Your task to perform on an android device: snooze an email in the gmail app Image 0: 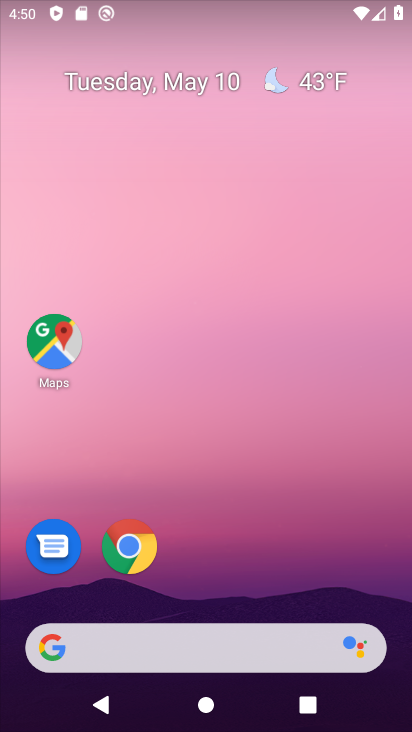
Step 0: drag from (258, 582) to (107, 148)
Your task to perform on an android device: snooze an email in the gmail app Image 1: 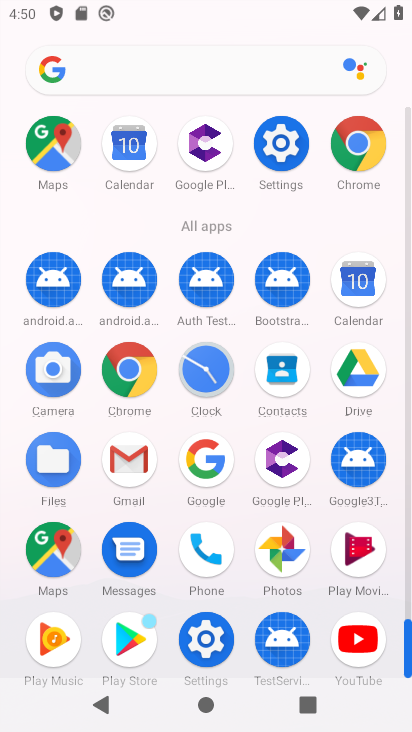
Step 1: click (124, 448)
Your task to perform on an android device: snooze an email in the gmail app Image 2: 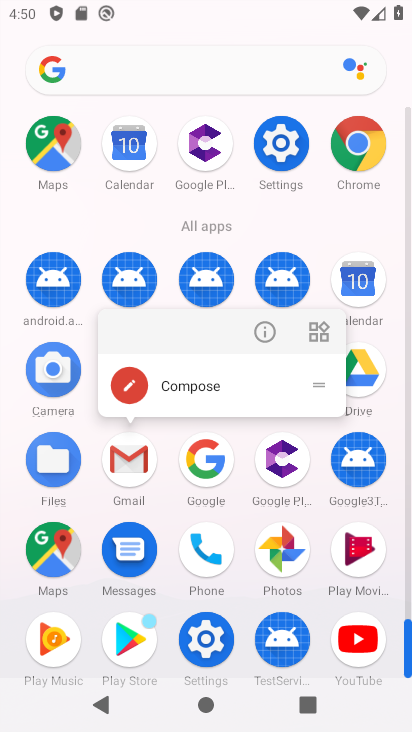
Step 2: click (122, 455)
Your task to perform on an android device: snooze an email in the gmail app Image 3: 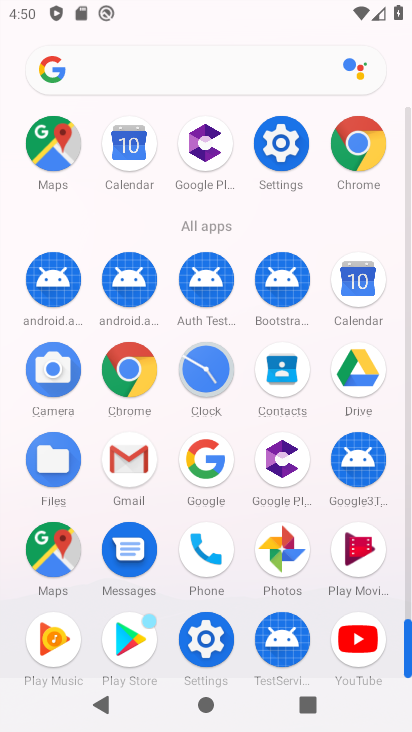
Step 3: click (123, 453)
Your task to perform on an android device: snooze an email in the gmail app Image 4: 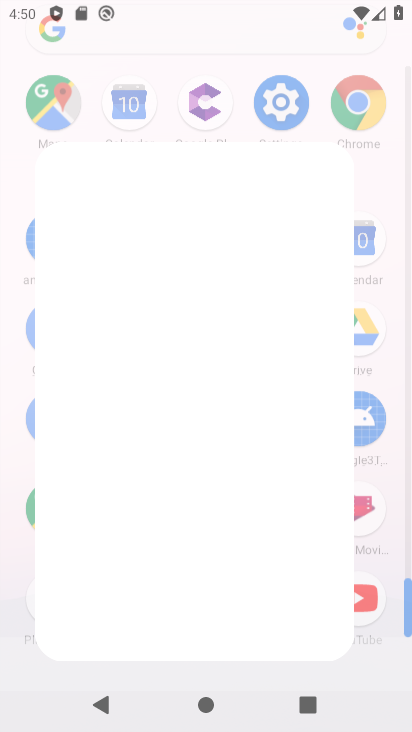
Step 4: click (123, 453)
Your task to perform on an android device: snooze an email in the gmail app Image 5: 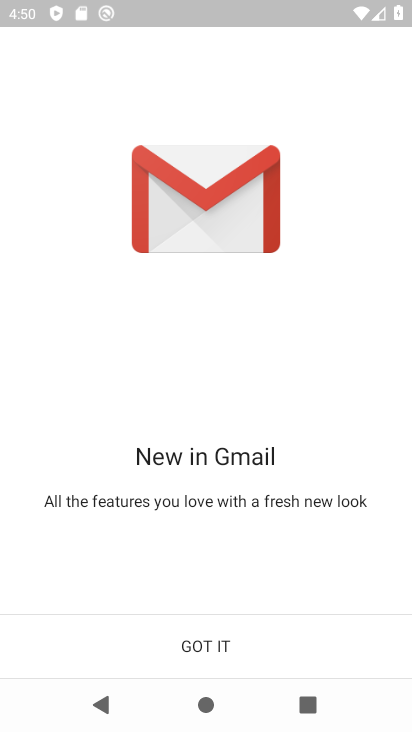
Step 5: click (209, 640)
Your task to perform on an android device: snooze an email in the gmail app Image 6: 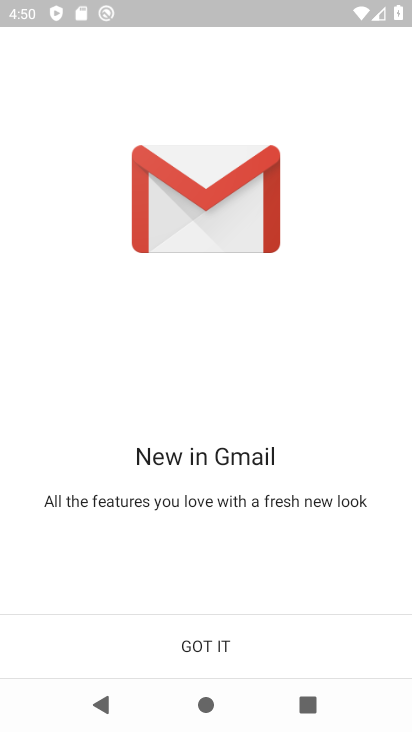
Step 6: click (210, 649)
Your task to perform on an android device: snooze an email in the gmail app Image 7: 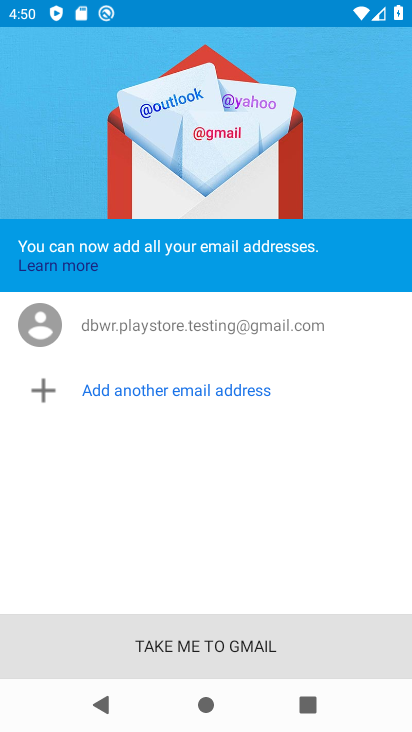
Step 7: click (209, 647)
Your task to perform on an android device: snooze an email in the gmail app Image 8: 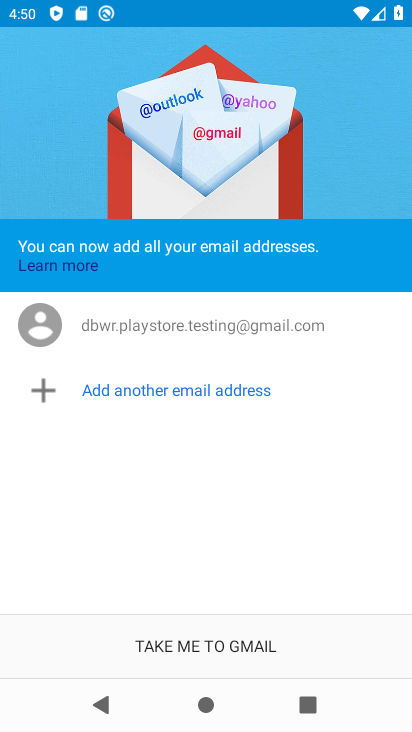
Step 8: click (209, 647)
Your task to perform on an android device: snooze an email in the gmail app Image 9: 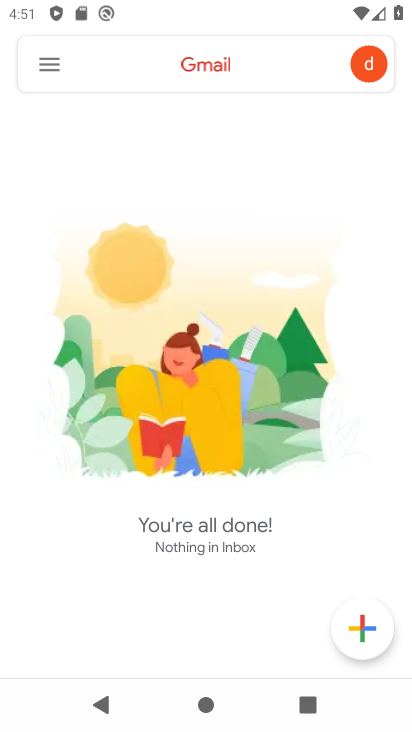
Step 9: click (51, 72)
Your task to perform on an android device: snooze an email in the gmail app Image 10: 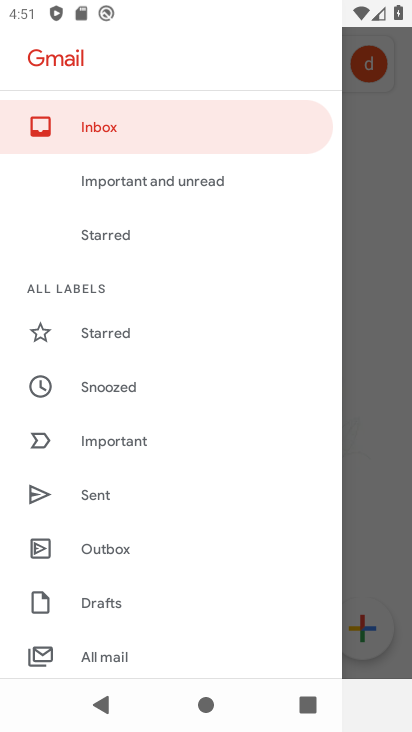
Step 10: click (98, 650)
Your task to perform on an android device: snooze an email in the gmail app Image 11: 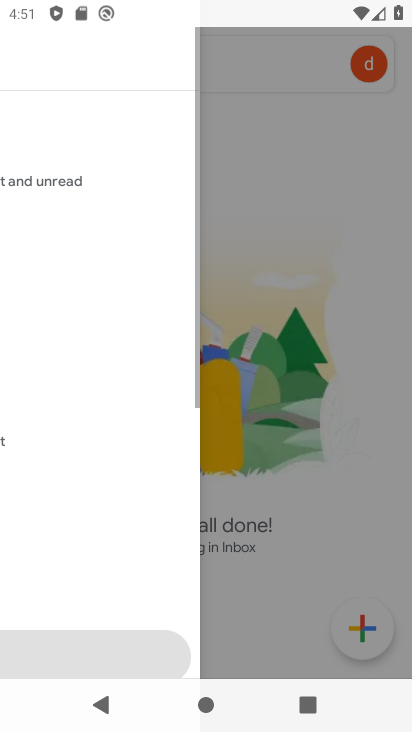
Step 11: click (98, 651)
Your task to perform on an android device: snooze an email in the gmail app Image 12: 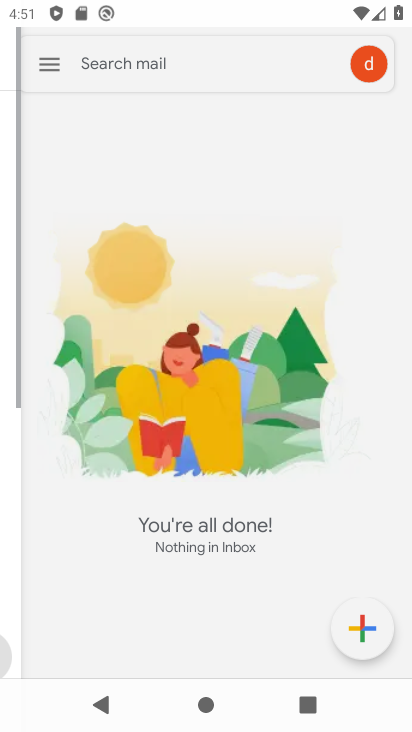
Step 12: click (99, 652)
Your task to perform on an android device: snooze an email in the gmail app Image 13: 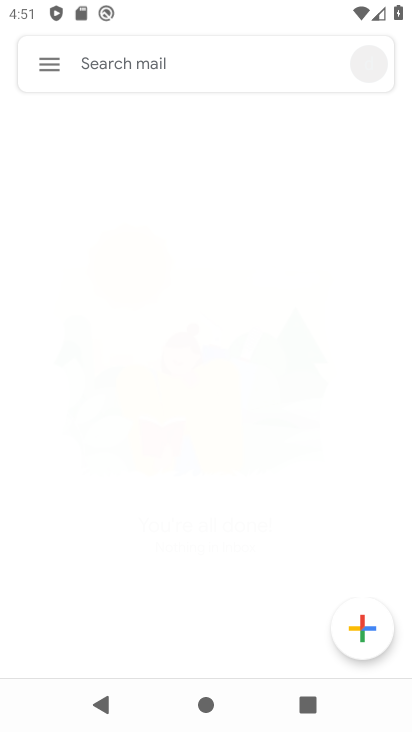
Step 13: click (100, 653)
Your task to perform on an android device: snooze an email in the gmail app Image 14: 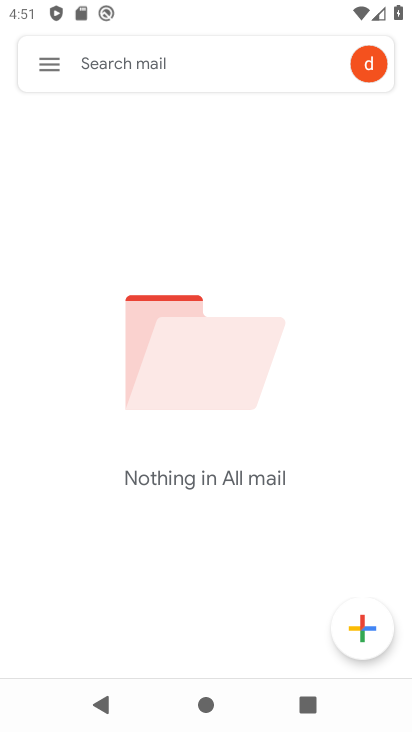
Step 14: task complete